Your task to perform on an android device: toggle translation in the chrome app Image 0: 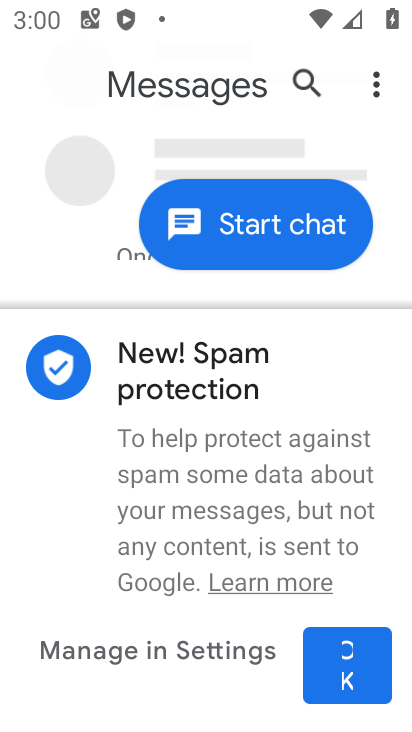
Step 0: press home button
Your task to perform on an android device: toggle translation in the chrome app Image 1: 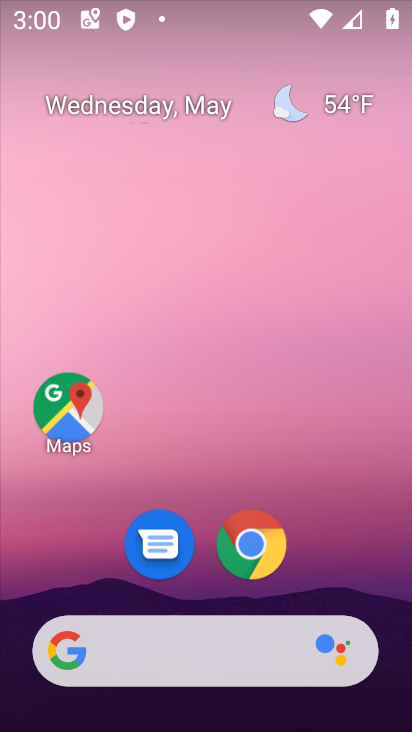
Step 1: drag from (380, 542) to (389, 96)
Your task to perform on an android device: toggle translation in the chrome app Image 2: 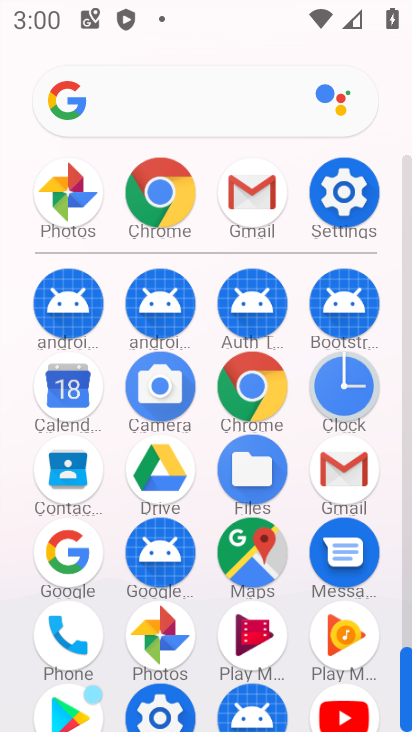
Step 2: click (336, 198)
Your task to perform on an android device: toggle translation in the chrome app Image 3: 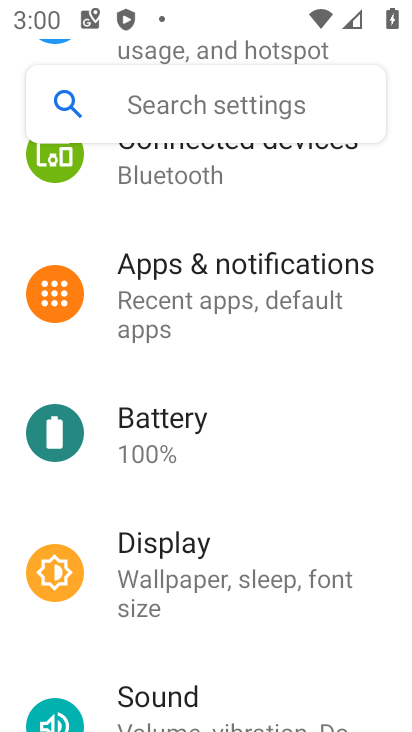
Step 3: press home button
Your task to perform on an android device: toggle translation in the chrome app Image 4: 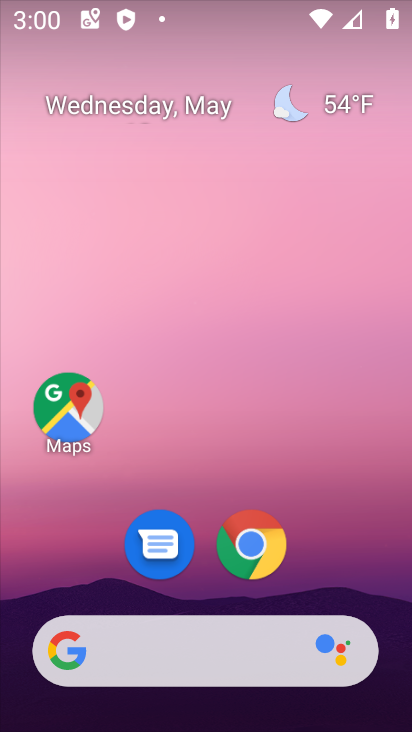
Step 4: click (243, 536)
Your task to perform on an android device: toggle translation in the chrome app Image 5: 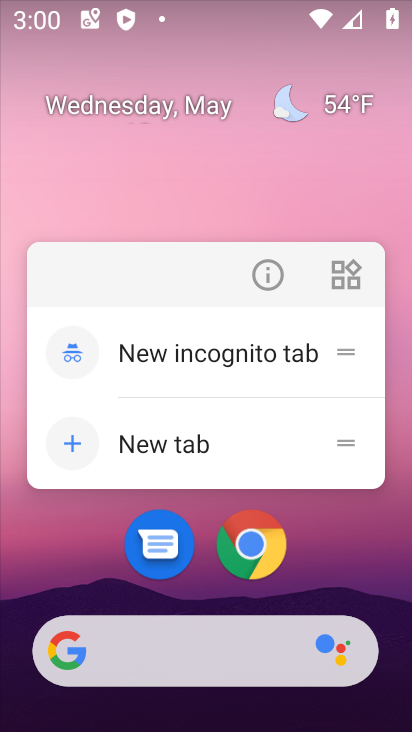
Step 5: click (250, 550)
Your task to perform on an android device: toggle translation in the chrome app Image 6: 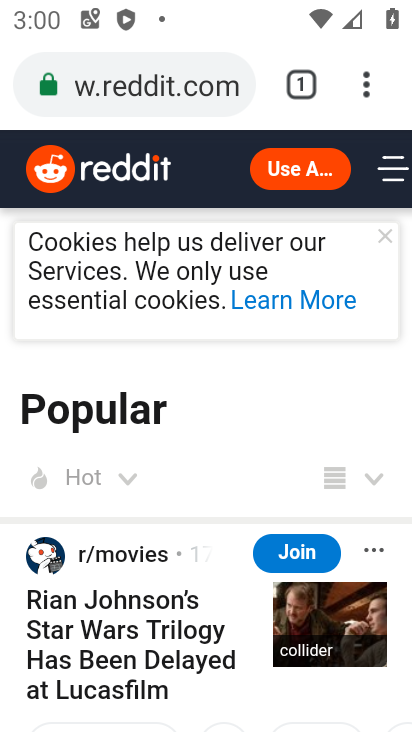
Step 6: click (362, 99)
Your task to perform on an android device: toggle translation in the chrome app Image 7: 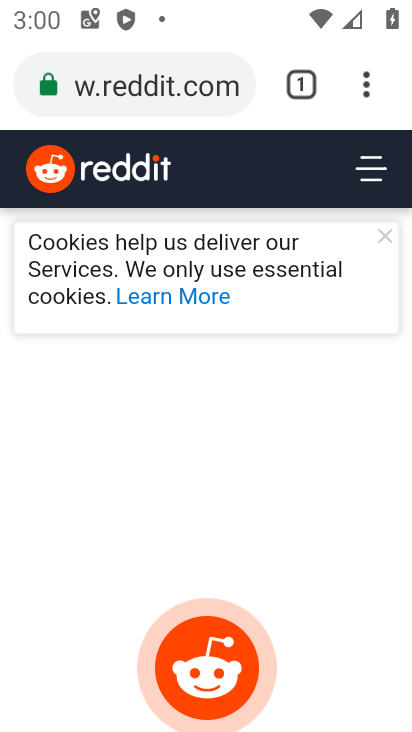
Step 7: click (366, 71)
Your task to perform on an android device: toggle translation in the chrome app Image 8: 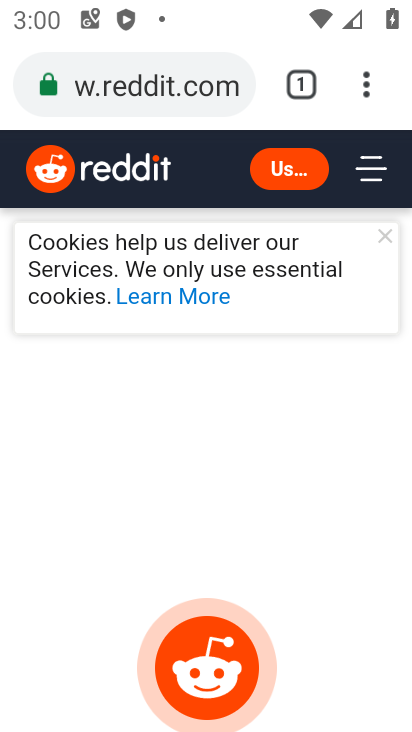
Step 8: click (366, 71)
Your task to perform on an android device: toggle translation in the chrome app Image 9: 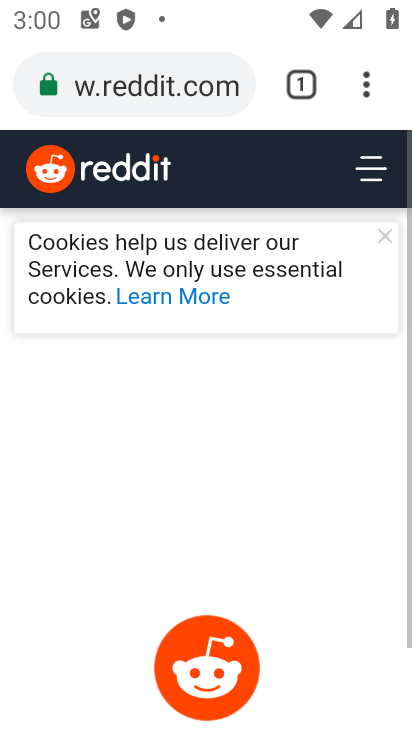
Step 9: click (366, 71)
Your task to perform on an android device: toggle translation in the chrome app Image 10: 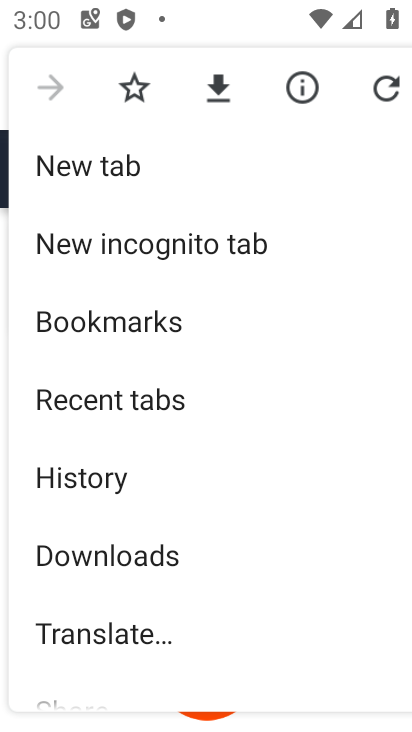
Step 10: drag from (112, 657) to (206, 261)
Your task to perform on an android device: toggle translation in the chrome app Image 11: 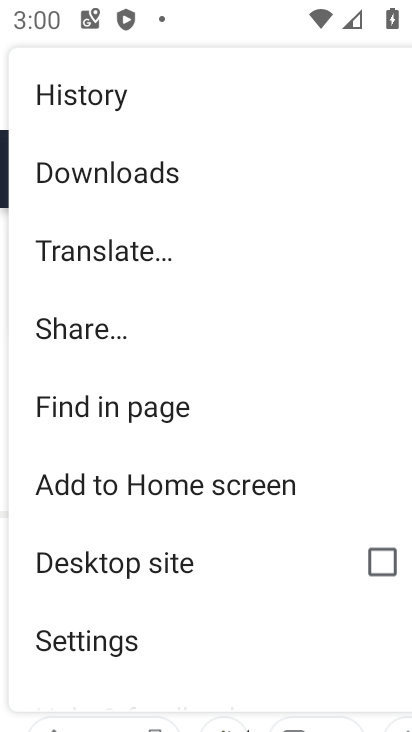
Step 11: click (118, 628)
Your task to perform on an android device: toggle translation in the chrome app Image 12: 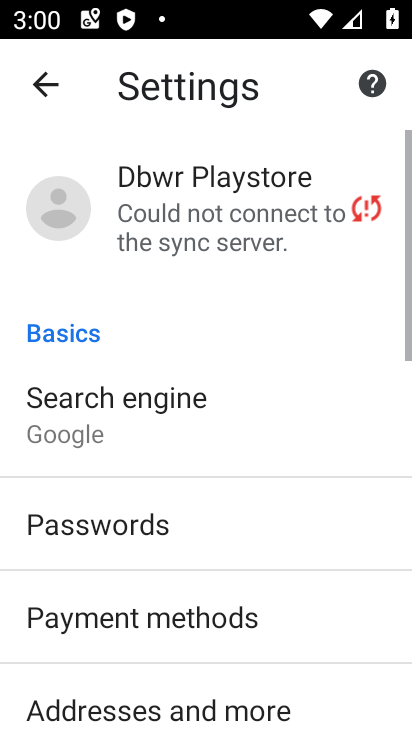
Step 12: drag from (118, 628) to (220, 248)
Your task to perform on an android device: toggle translation in the chrome app Image 13: 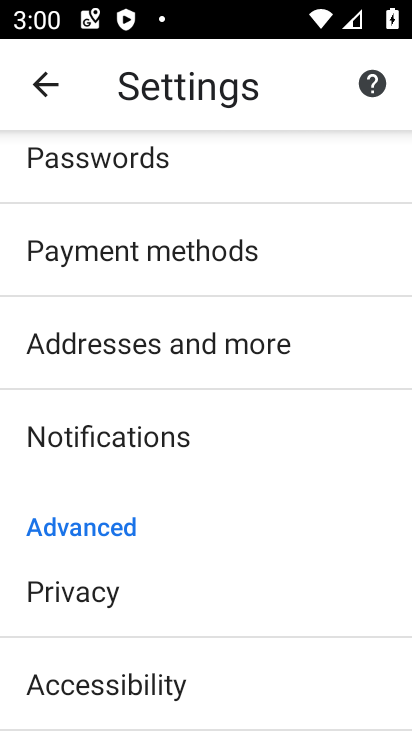
Step 13: drag from (183, 648) to (239, 299)
Your task to perform on an android device: toggle translation in the chrome app Image 14: 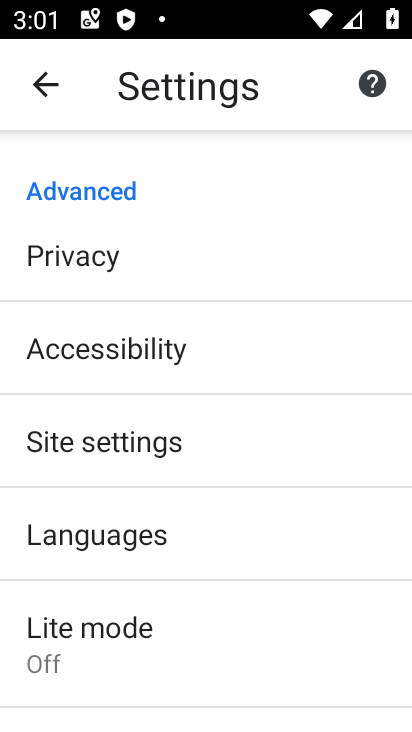
Step 14: click (214, 456)
Your task to perform on an android device: toggle translation in the chrome app Image 15: 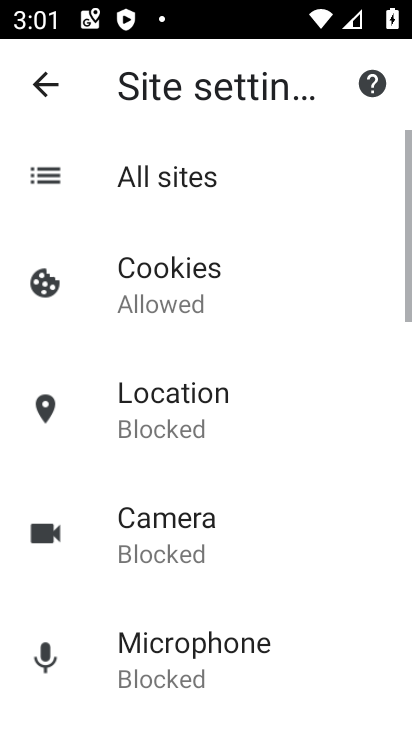
Step 15: task complete